Your task to perform on an android device: Search for "macbook" on costco, select the first entry, add it to the cart, then select checkout. Image 0: 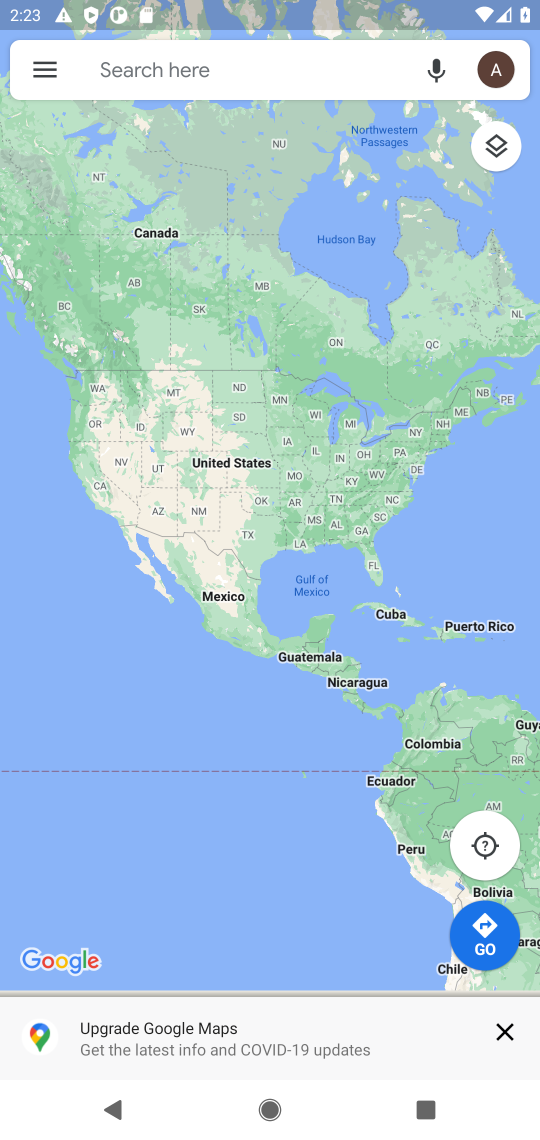
Step 0: press home button
Your task to perform on an android device: Search for "macbook" on costco, select the first entry, add it to the cart, then select checkout. Image 1: 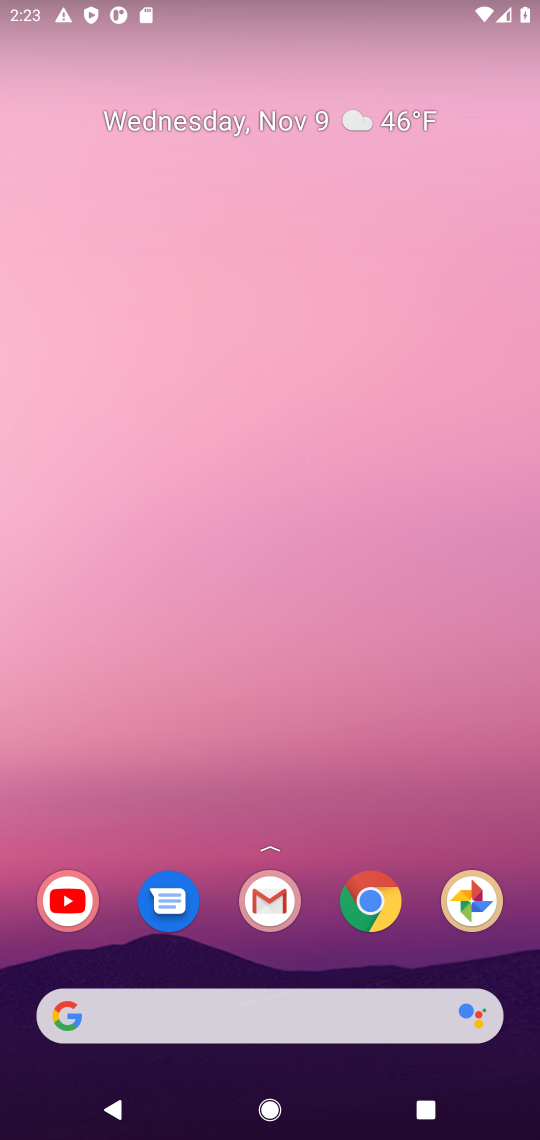
Step 1: click (387, 912)
Your task to perform on an android device: Search for "macbook" on costco, select the first entry, add it to the cart, then select checkout. Image 2: 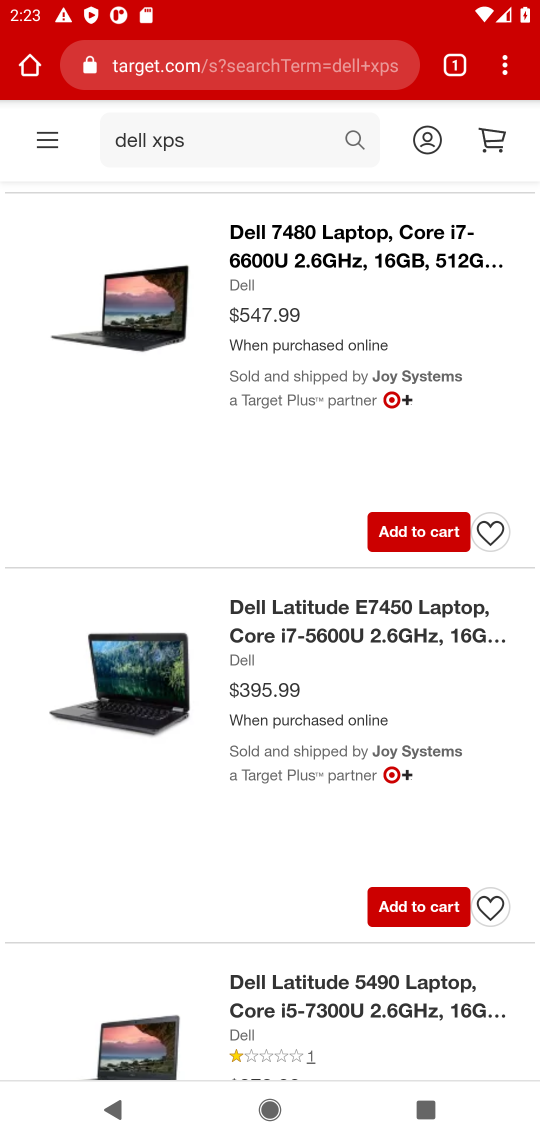
Step 2: click (355, 71)
Your task to perform on an android device: Search for "macbook" on costco, select the first entry, add it to the cart, then select checkout. Image 3: 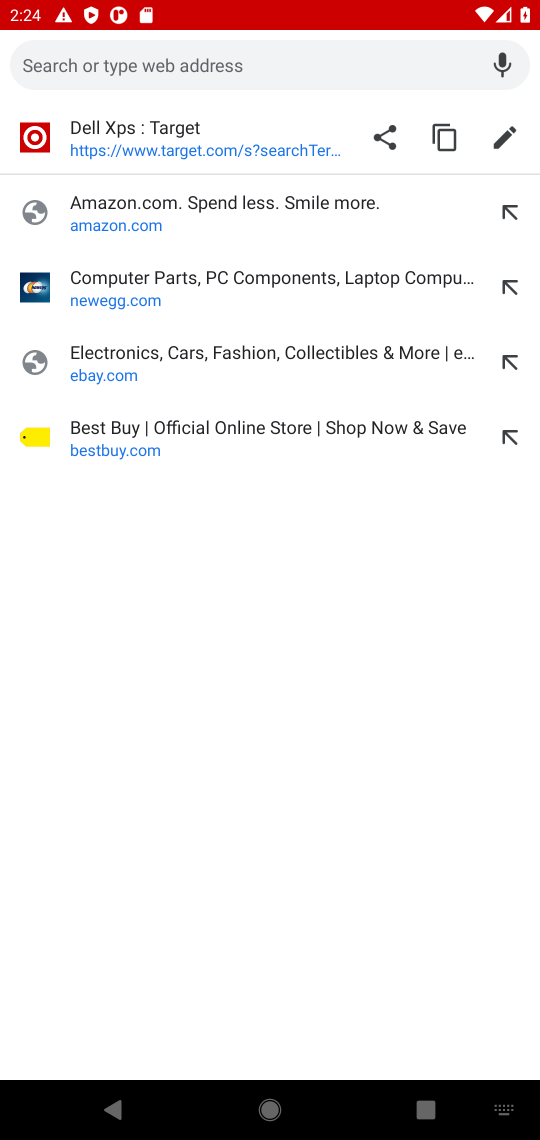
Step 3: press enter
Your task to perform on an android device: Search for "macbook" on costco, select the first entry, add it to the cart, then select checkout. Image 4: 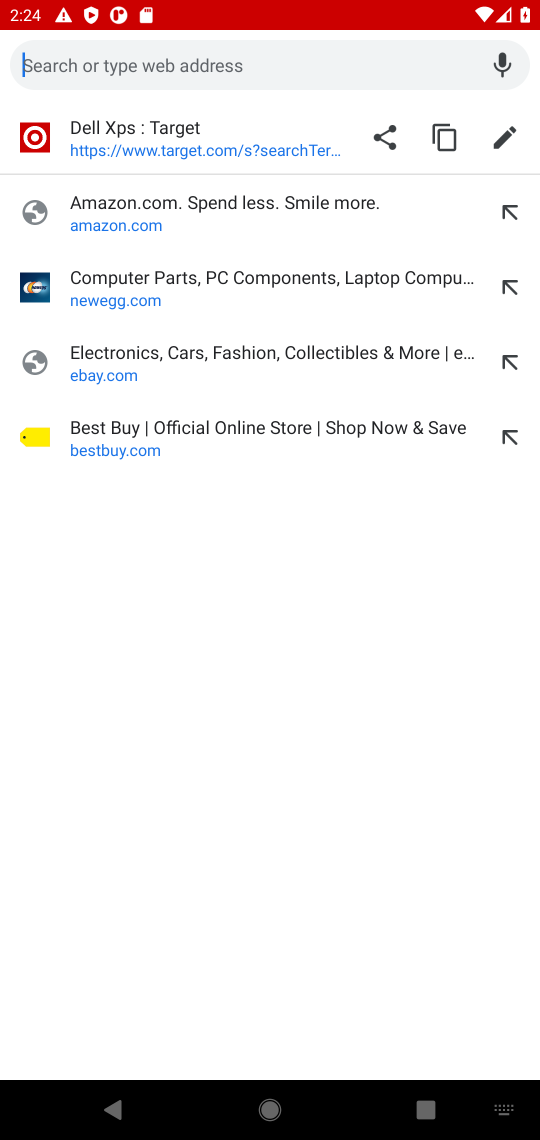
Step 4: type "costco"
Your task to perform on an android device: Search for "macbook" on costco, select the first entry, add it to the cart, then select checkout. Image 5: 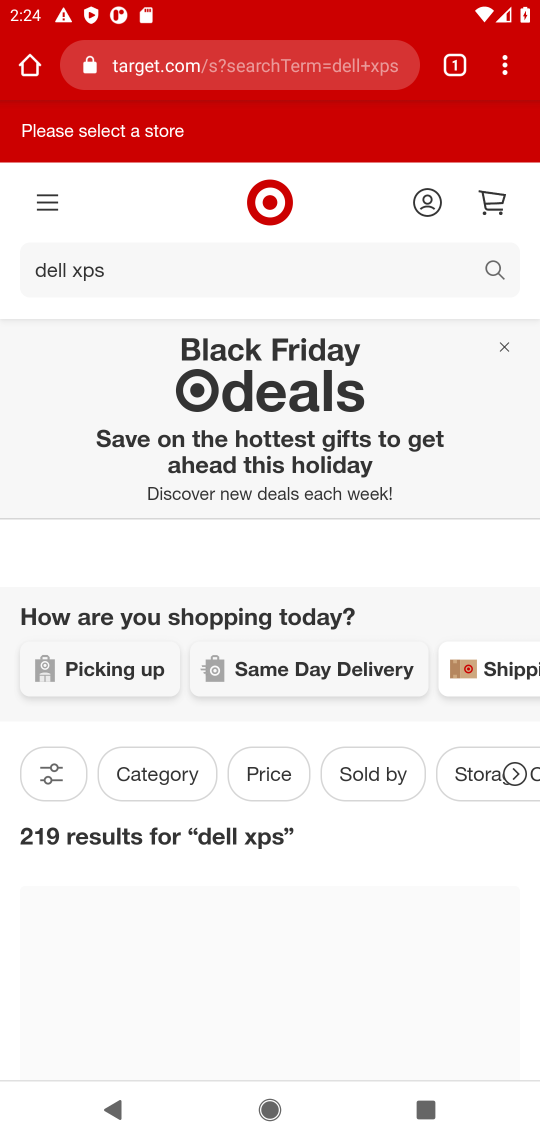
Step 5: click (30, 75)
Your task to perform on an android device: Search for "macbook" on costco, select the first entry, add it to the cart, then select checkout. Image 6: 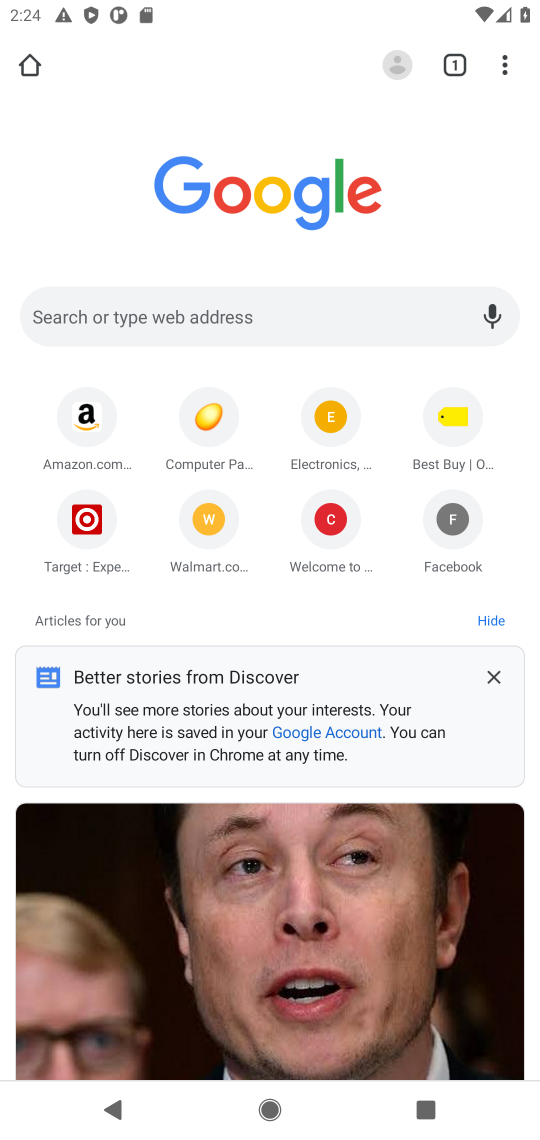
Step 6: click (239, 324)
Your task to perform on an android device: Search for "macbook" on costco, select the first entry, add it to the cart, then select checkout. Image 7: 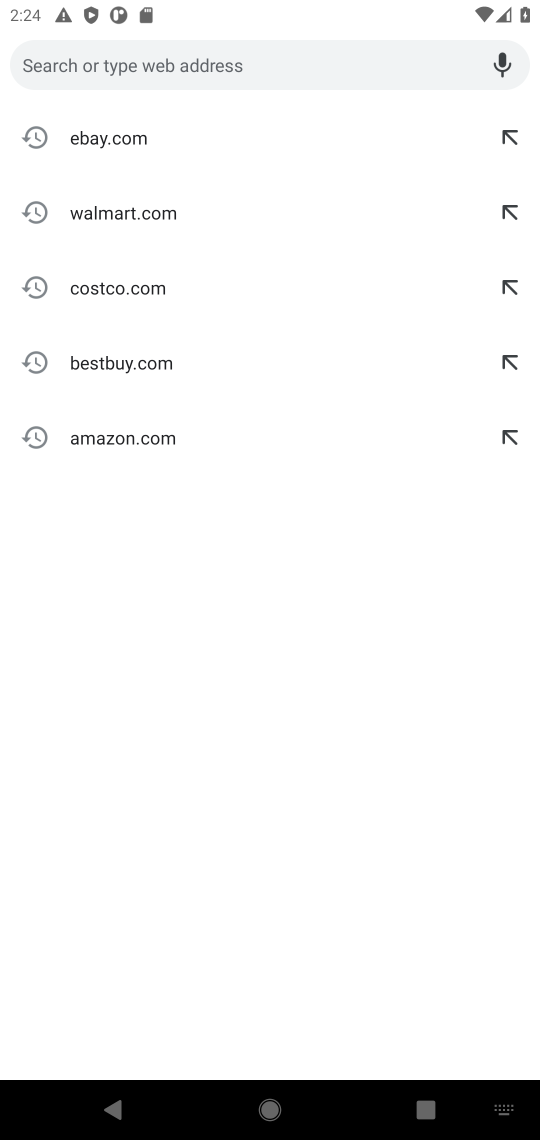
Step 7: click (148, 281)
Your task to perform on an android device: Search for "macbook" on costco, select the first entry, add it to the cart, then select checkout. Image 8: 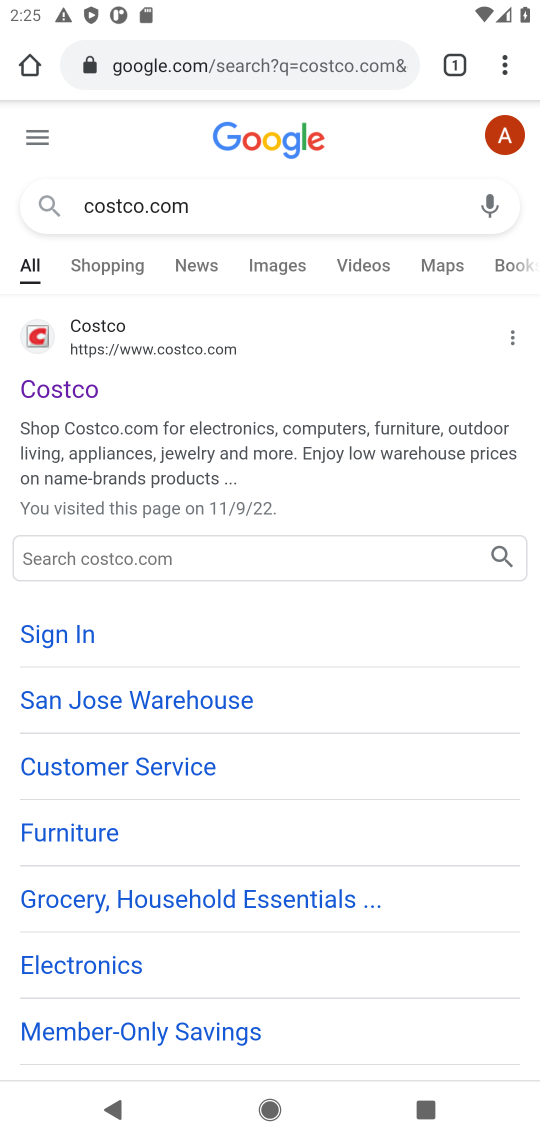
Step 8: click (130, 343)
Your task to perform on an android device: Search for "macbook" on costco, select the first entry, add it to the cart, then select checkout. Image 9: 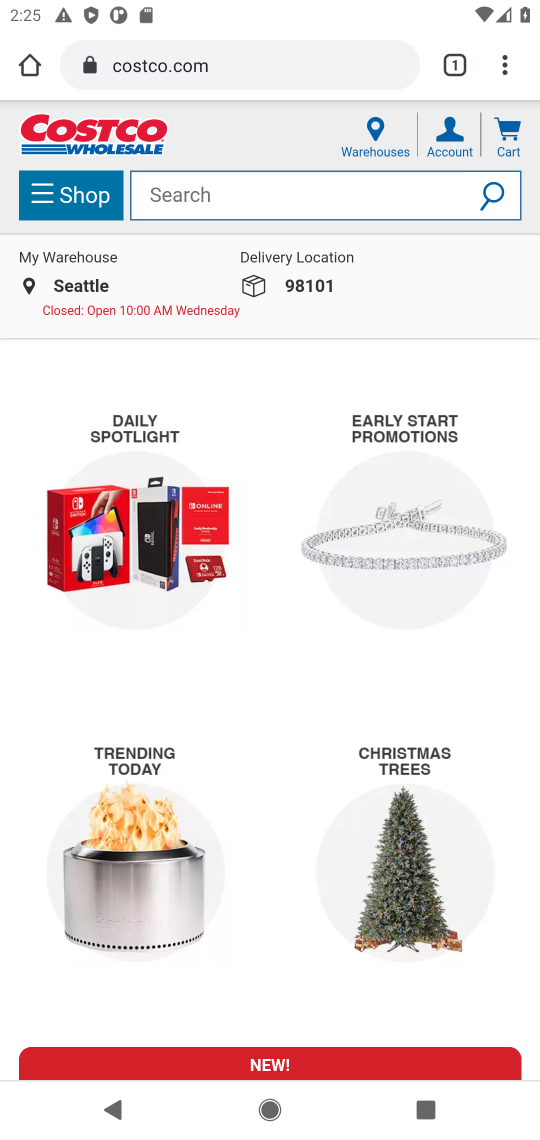
Step 9: press enter
Your task to perform on an android device: Search for "macbook" on costco, select the first entry, add it to the cart, then select checkout. Image 10: 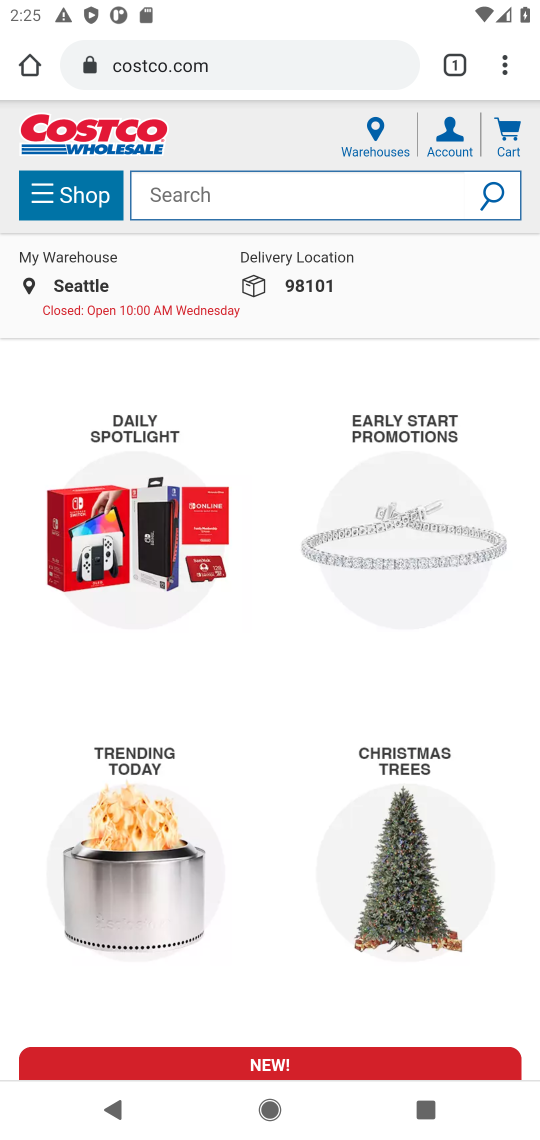
Step 10: type "macbook"
Your task to perform on an android device: Search for "macbook" on costco, select the first entry, add it to the cart, then select checkout. Image 11: 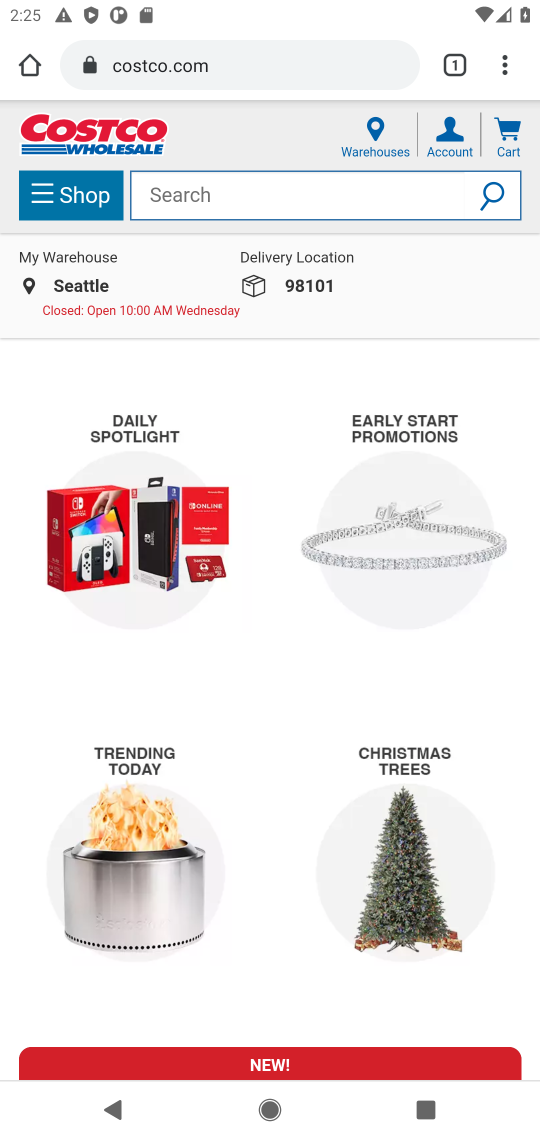
Step 11: click (499, 197)
Your task to perform on an android device: Search for "macbook" on costco, select the first entry, add it to the cart, then select checkout. Image 12: 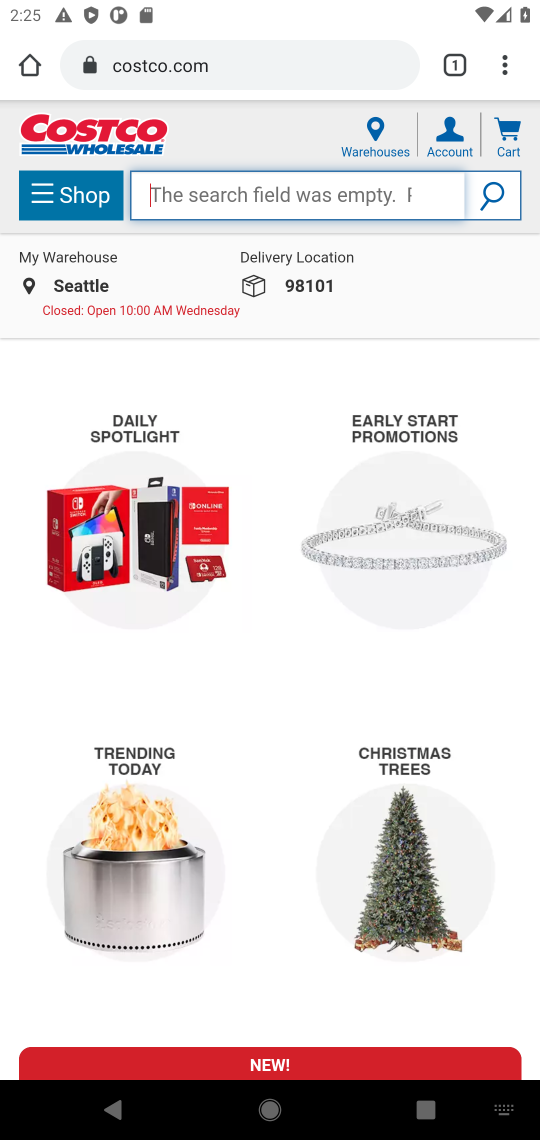
Step 12: press enter
Your task to perform on an android device: Search for "macbook" on costco, select the first entry, add it to the cart, then select checkout. Image 13: 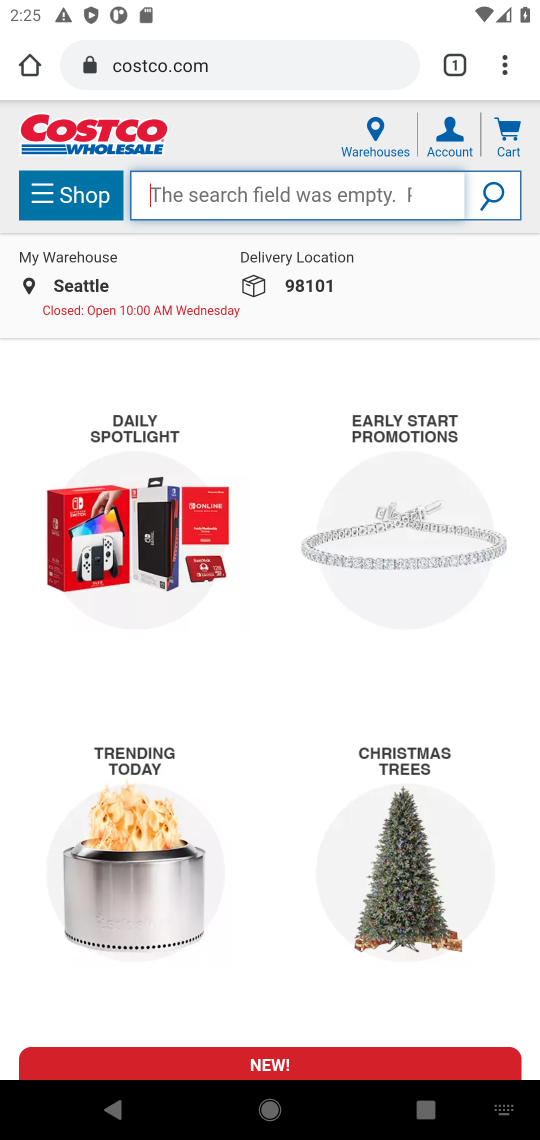
Step 13: type "macbook"
Your task to perform on an android device: Search for "macbook" on costco, select the first entry, add it to the cart, then select checkout. Image 14: 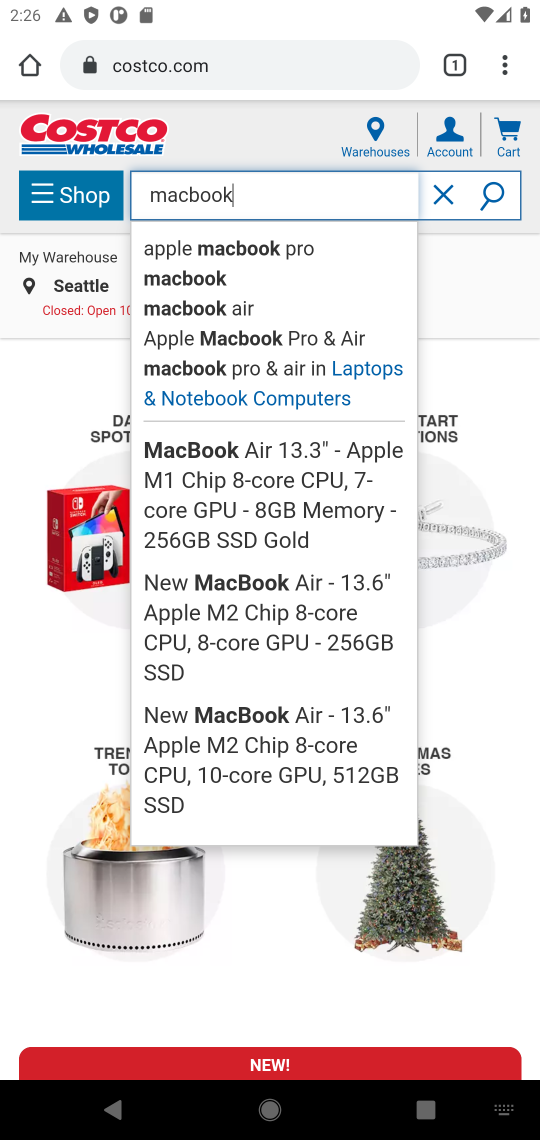
Step 14: click (168, 281)
Your task to perform on an android device: Search for "macbook" on costco, select the first entry, add it to the cart, then select checkout. Image 15: 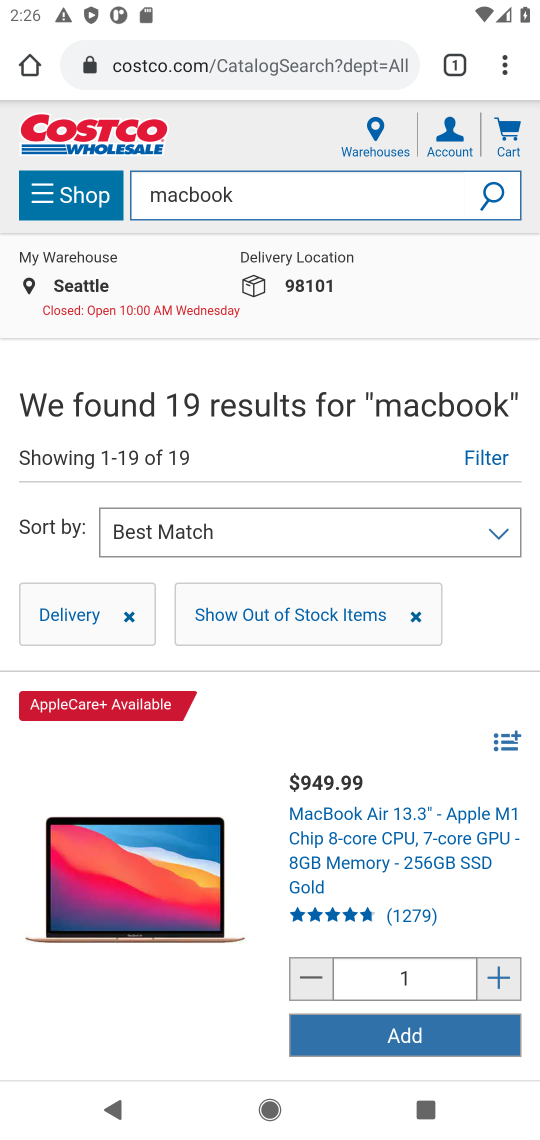
Step 15: drag from (191, 884) to (245, 480)
Your task to perform on an android device: Search for "macbook" on costco, select the first entry, add it to the cart, then select checkout. Image 16: 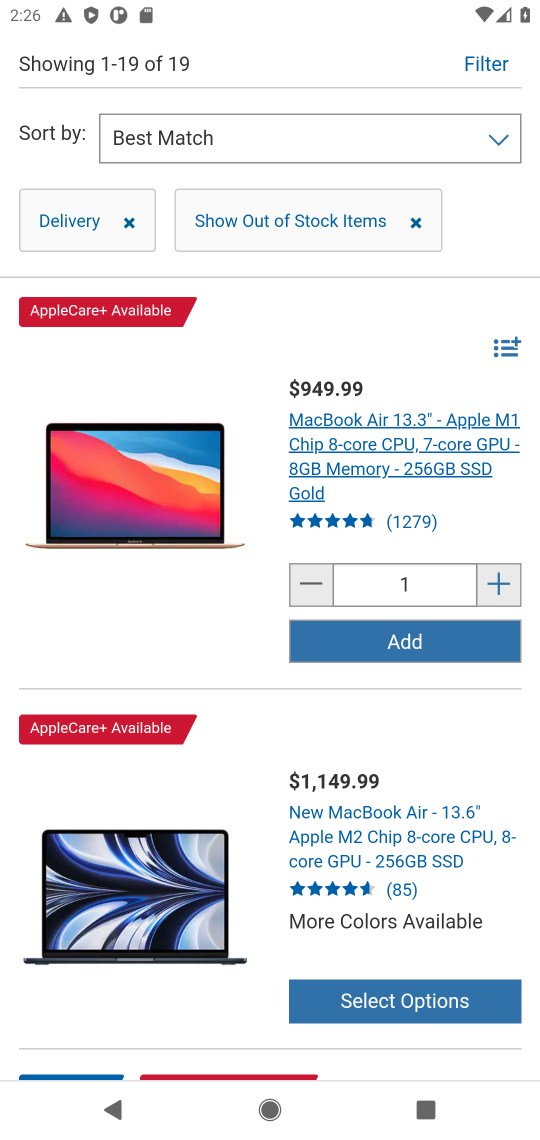
Step 16: click (155, 451)
Your task to perform on an android device: Search for "macbook" on costco, select the first entry, add it to the cart, then select checkout. Image 17: 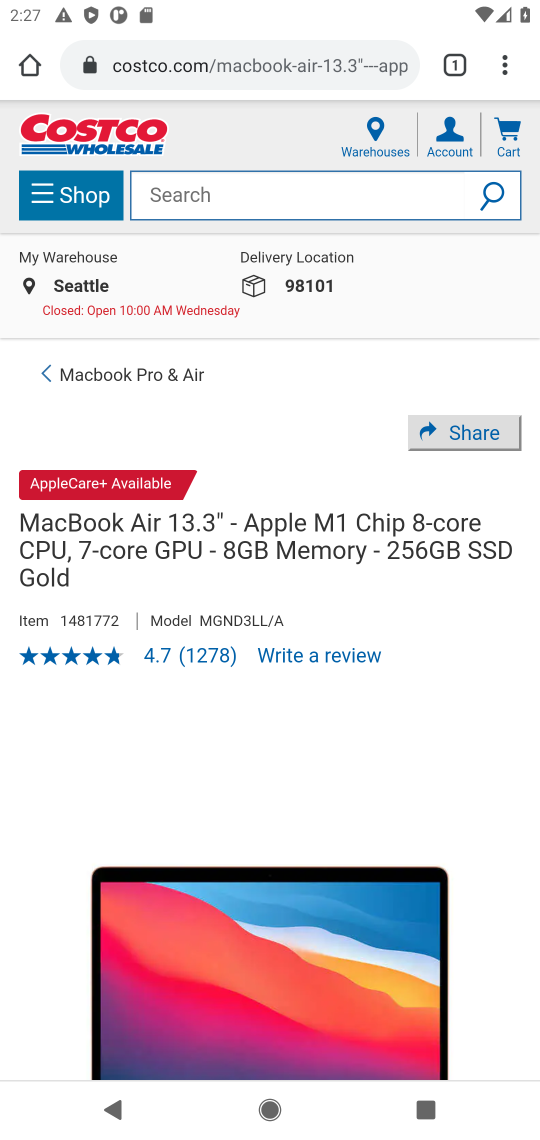
Step 17: click (42, 519)
Your task to perform on an android device: Search for "macbook" on costco, select the first entry, add it to the cart, then select checkout. Image 18: 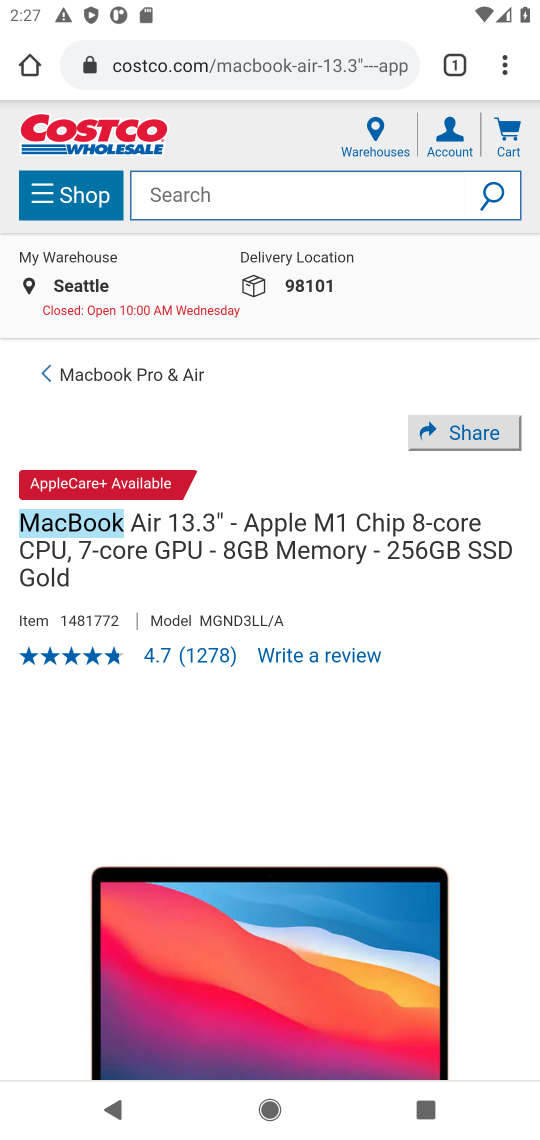
Step 18: click (71, 533)
Your task to perform on an android device: Search for "macbook" on costco, select the first entry, add it to the cart, then select checkout. Image 19: 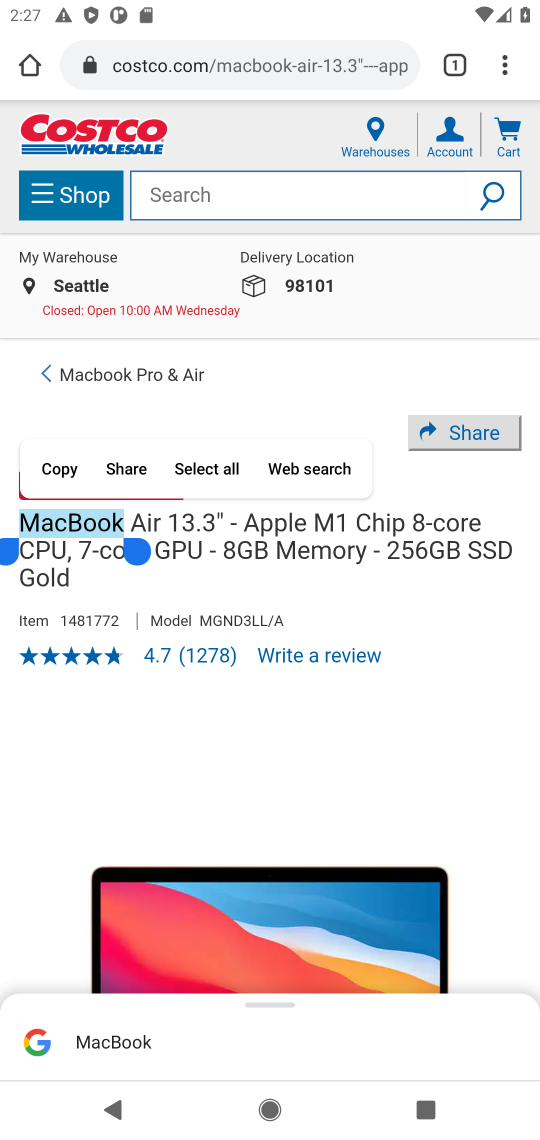
Step 19: click (481, 665)
Your task to perform on an android device: Search for "macbook" on costco, select the first entry, add it to the cart, then select checkout. Image 20: 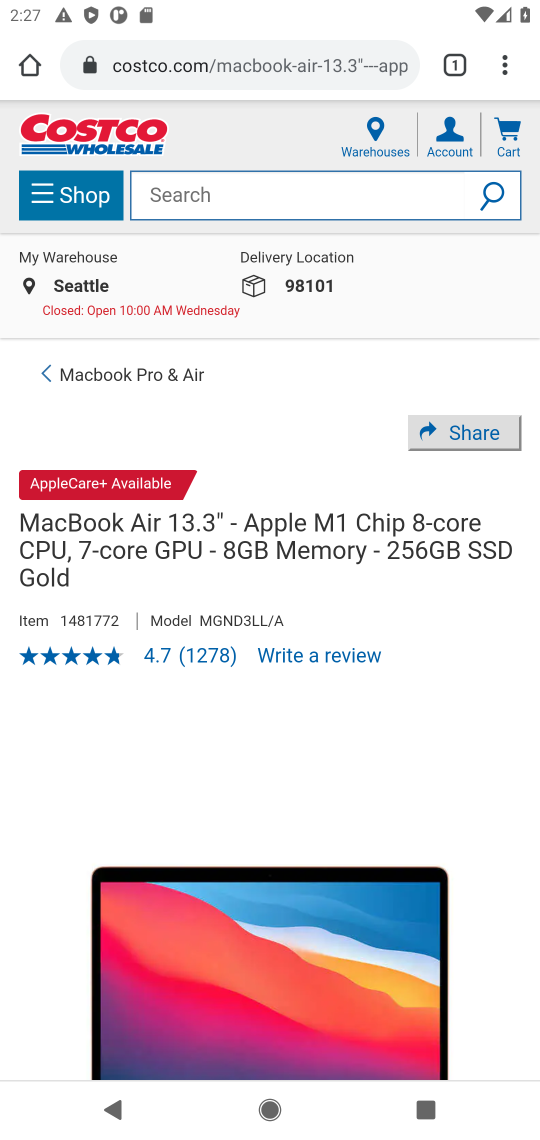
Step 20: drag from (445, 751) to (535, 740)
Your task to perform on an android device: Search for "macbook" on costco, select the first entry, add it to the cart, then select checkout. Image 21: 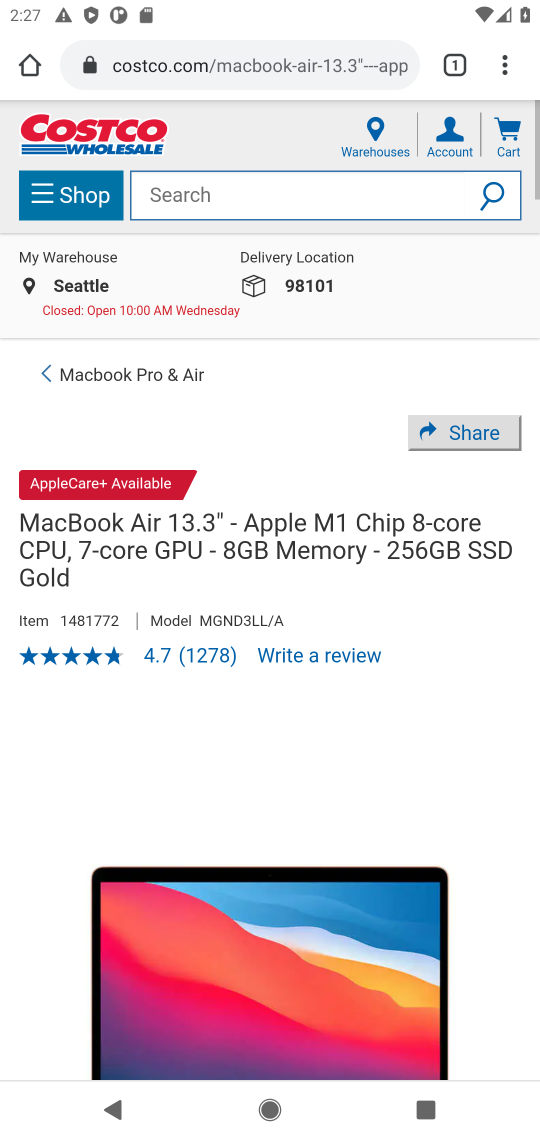
Step 21: drag from (425, 831) to (474, 542)
Your task to perform on an android device: Search for "macbook" on costco, select the first entry, add it to the cart, then select checkout. Image 22: 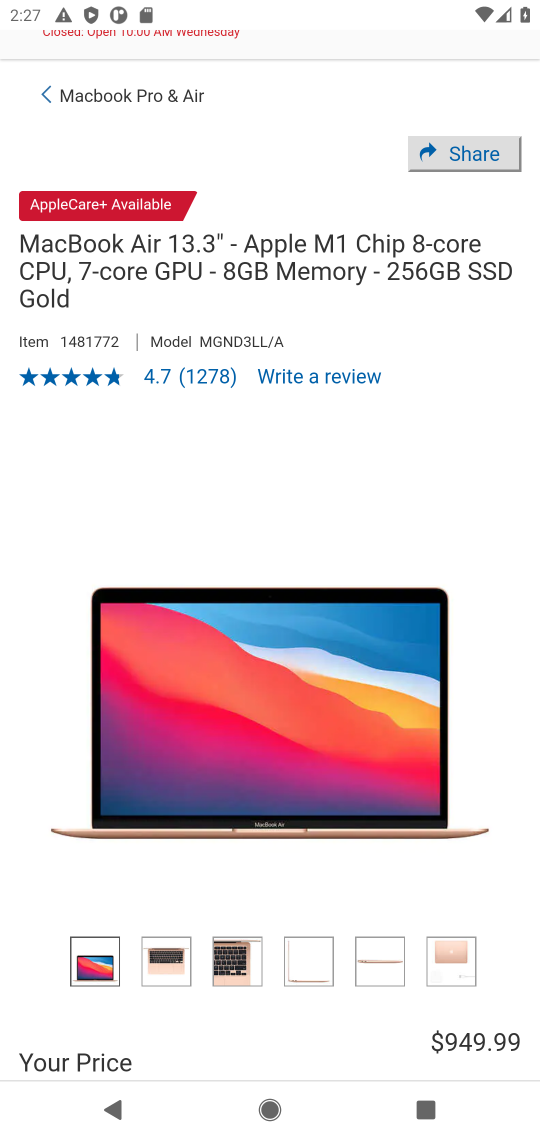
Step 22: drag from (461, 879) to (514, 299)
Your task to perform on an android device: Search for "macbook" on costco, select the first entry, add it to the cart, then select checkout. Image 23: 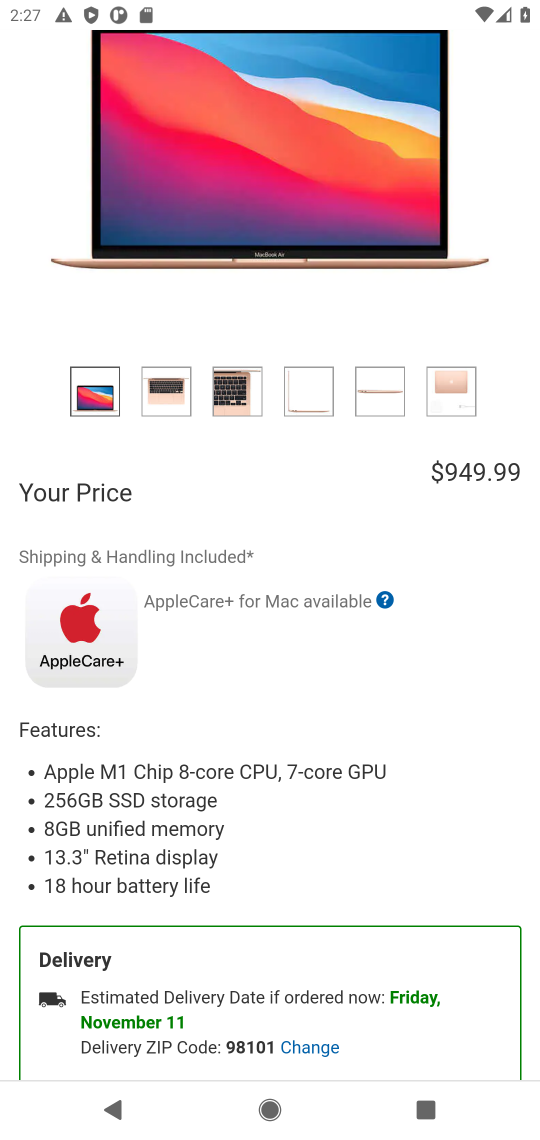
Step 23: drag from (444, 778) to (481, 410)
Your task to perform on an android device: Search for "macbook" on costco, select the first entry, add it to the cart, then select checkout. Image 24: 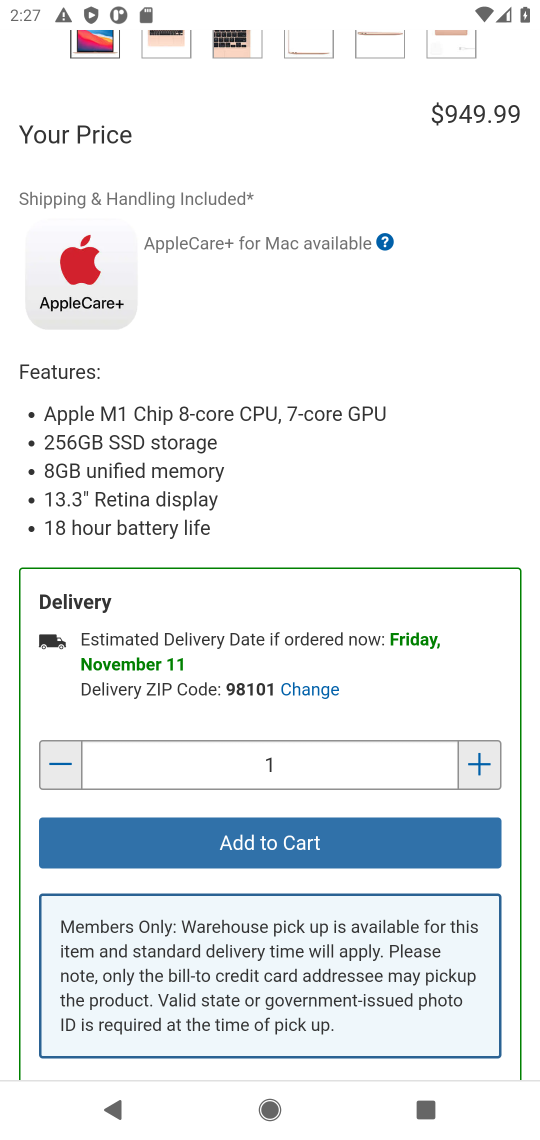
Step 24: click (326, 845)
Your task to perform on an android device: Search for "macbook" on costco, select the first entry, add it to the cart, then select checkout. Image 25: 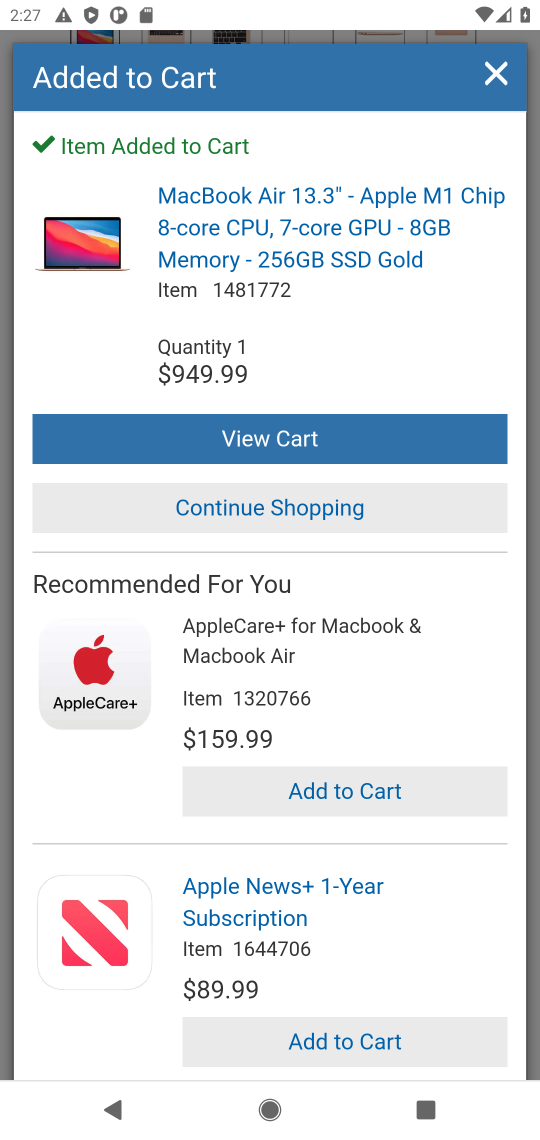
Step 25: click (323, 442)
Your task to perform on an android device: Search for "macbook" on costco, select the first entry, add it to the cart, then select checkout. Image 26: 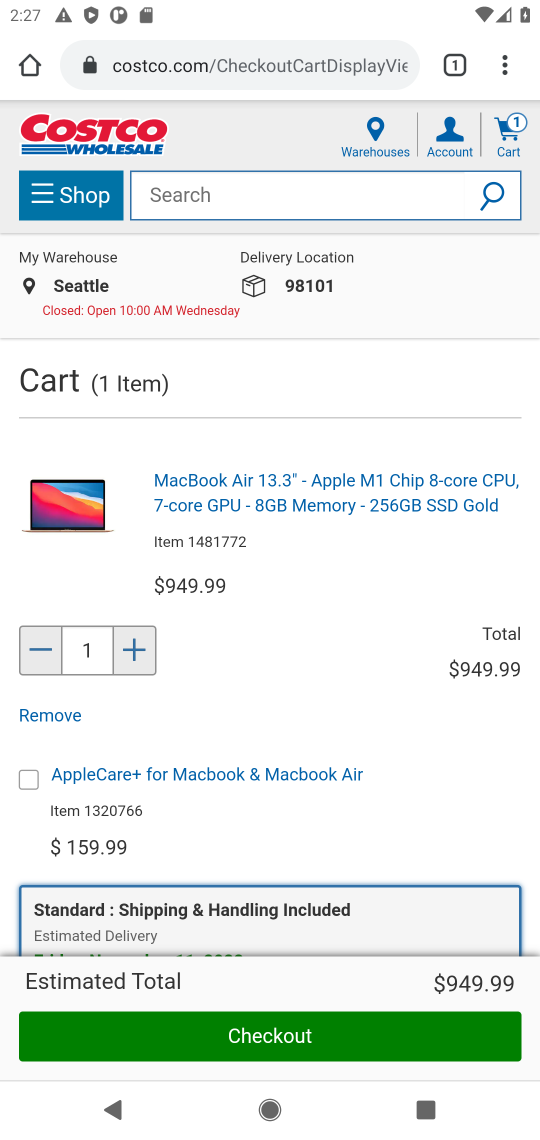
Step 26: task complete